Your task to perform on an android device: turn on the 24-hour format for clock Image 0: 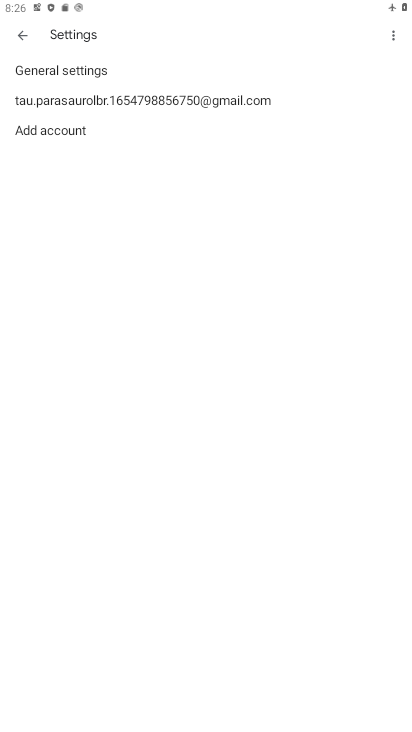
Step 0: press back button
Your task to perform on an android device: turn on the 24-hour format for clock Image 1: 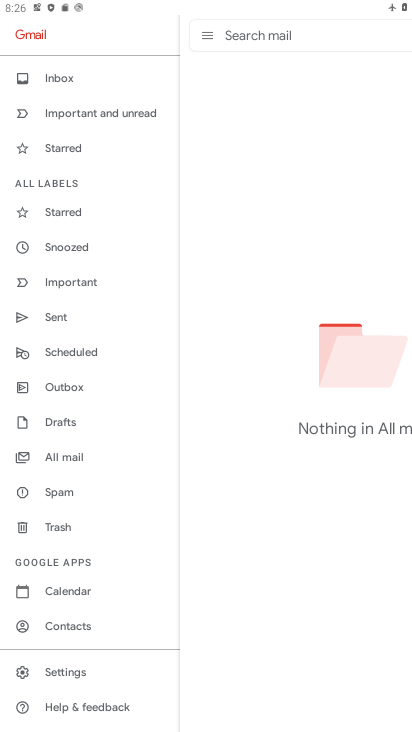
Step 1: press home button
Your task to perform on an android device: turn on the 24-hour format for clock Image 2: 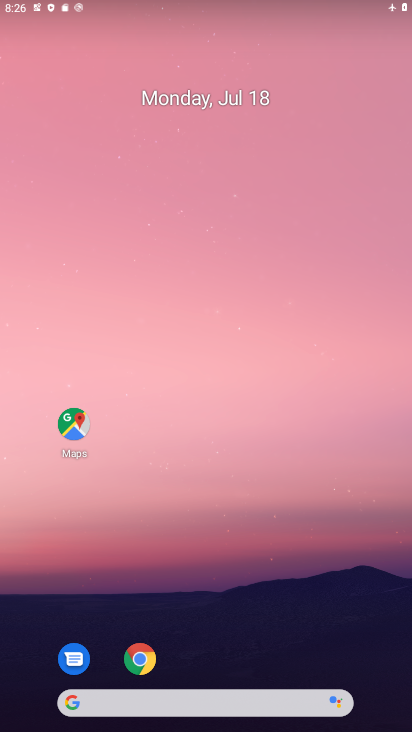
Step 2: drag from (249, 652) to (120, 183)
Your task to perform on an android device: turn on the 24-hour format for clock Image 3: 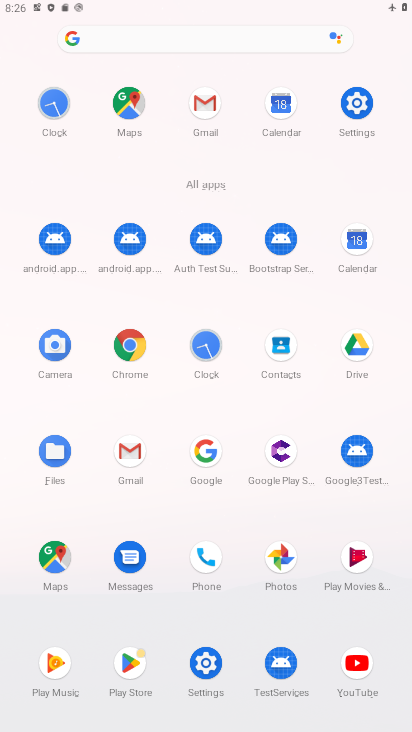
Step 3: click (208, 341)
Your task to perform on an android device: turn on the 24-hour format for clock Image 4: 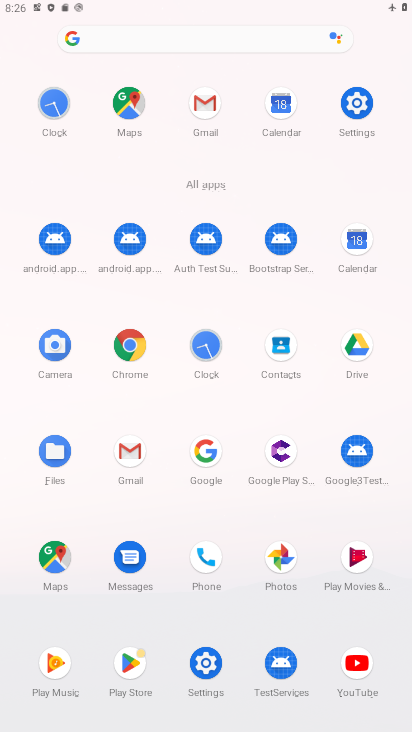
Step 4: click (200, 342)
Your task to perform on an android device: turn on the 24-hour format for clock Image 5: 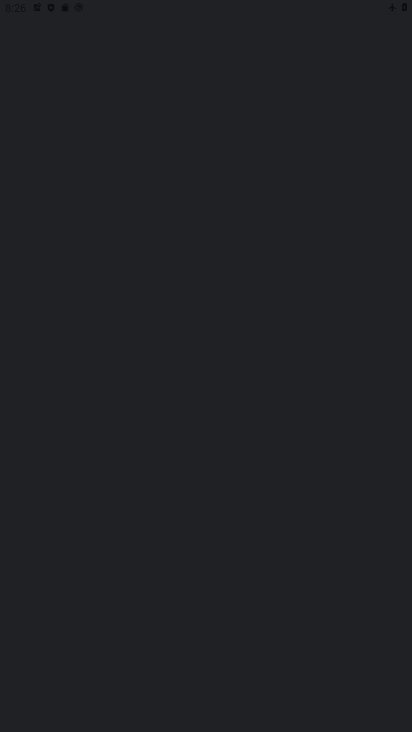
Step 5: click (200, 342)
Your task to perform on an android device: turn on the 24-hour format for clock Image 6: 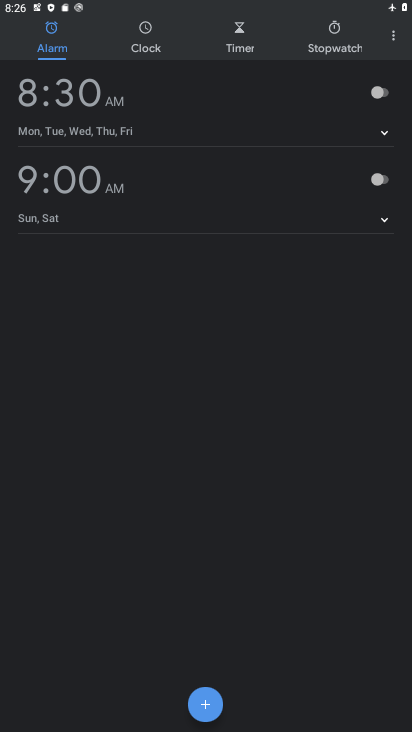
Step 6: click (210, 340)
Your task to perform on an android device: turn on the 24-hour format for clock Image 7: 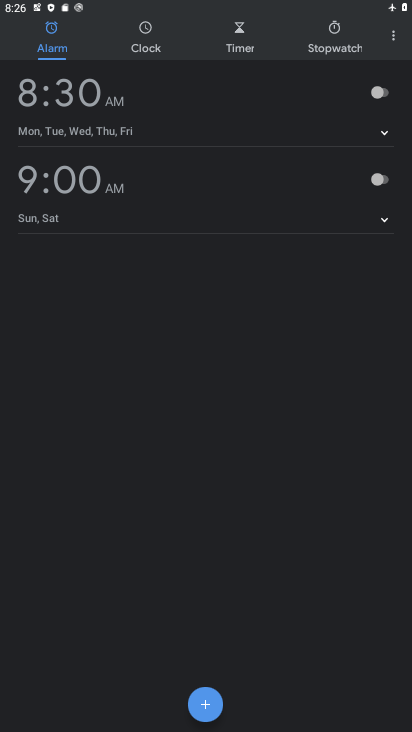
Step 7: click (387, 37)
Your task to perform on an android device: turn on the 24-hour format for clock Image 8: 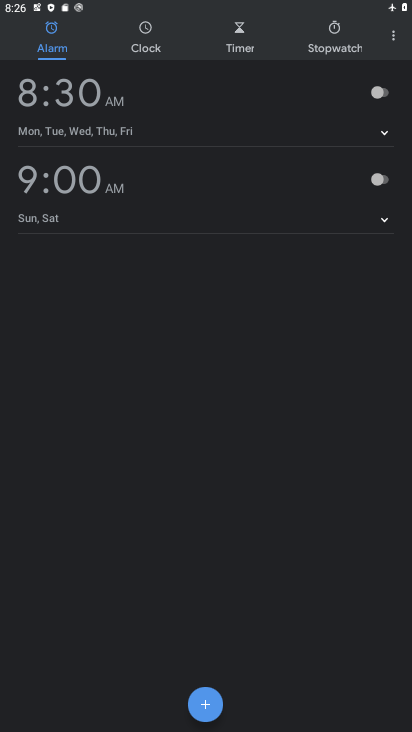
Step 8: click (387, 37)
Your task to perform on an android device: turn on the 24-hour format for clock Image 9: 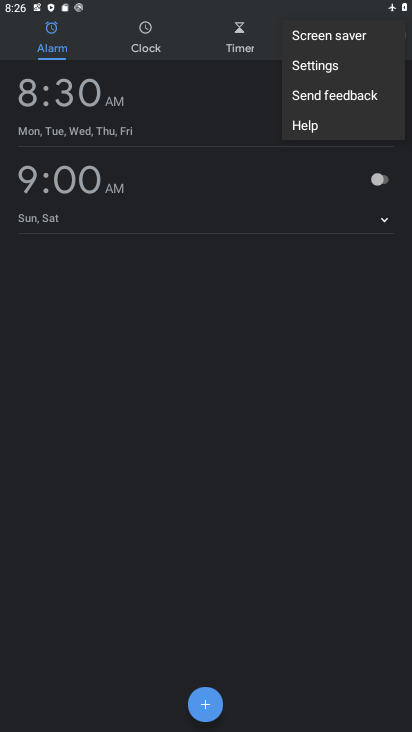
Step 9: click (387, 37)
Your task to perform on an android device: turn on the 24-hour format for clock Image 10: 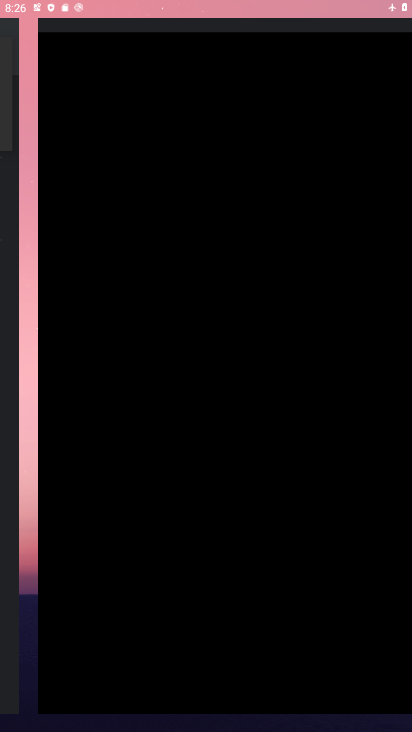
Step 10: click (315, 70)
Your task to perform on an android device: turn on the 24-hour format for clock Image 11: 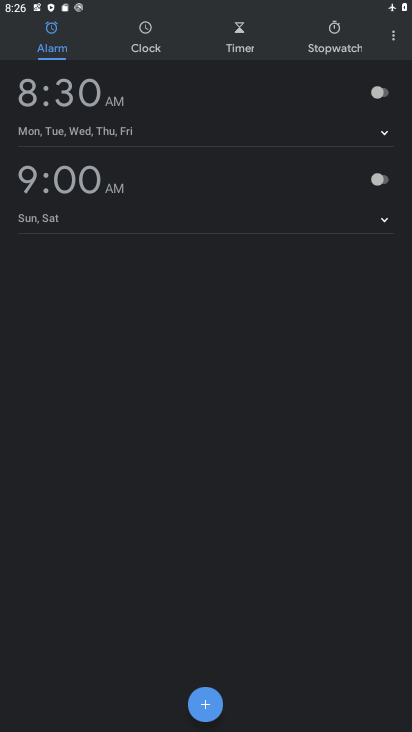
Step 11: click (389, 32)
Your task to perform on an android device: turn on the 24-hour format for clock Image 12: 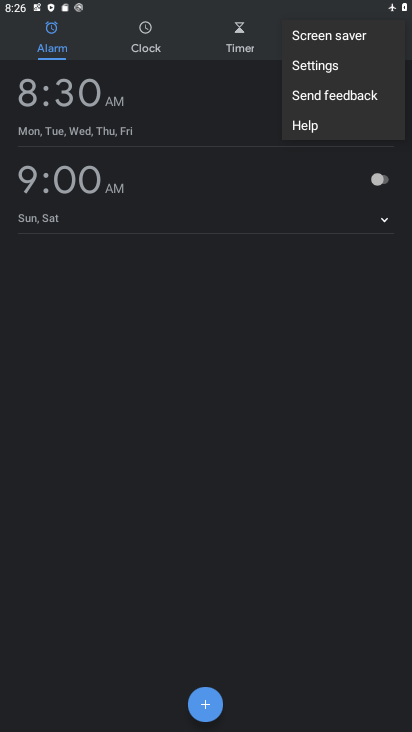
Step 12: click (309, 76)
Your task to perform on an android device: turn on the 24-hour format for clock Image 13: 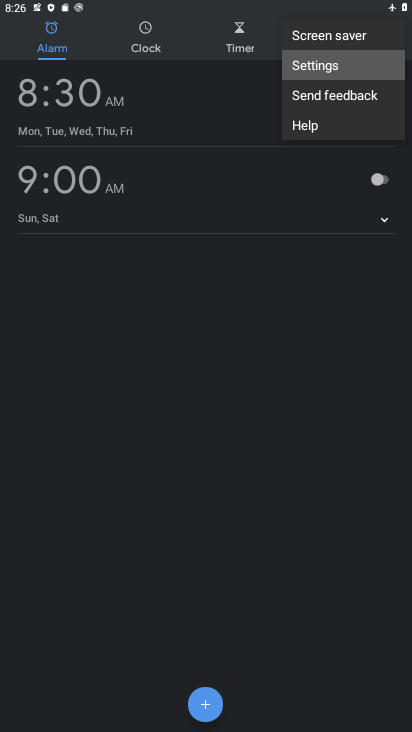
Step 13: click (309, 76)
Your task to perform on an android device: turn on the 24-hour format for clock Image 14: 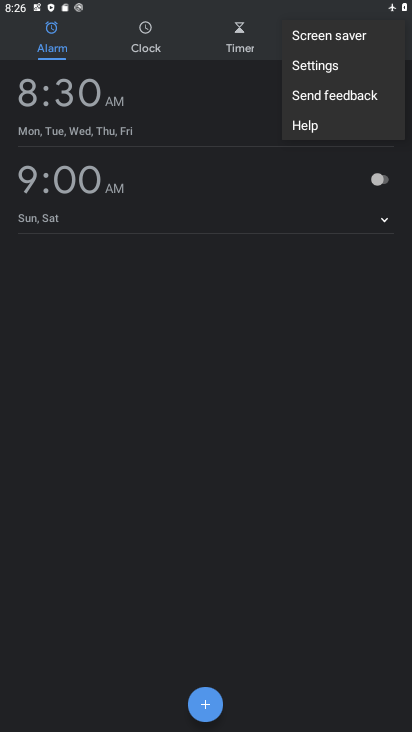
Step 14: click (309, 76)
Your task to perform on an android device: turn on the 24-hour format for clock Image 15: 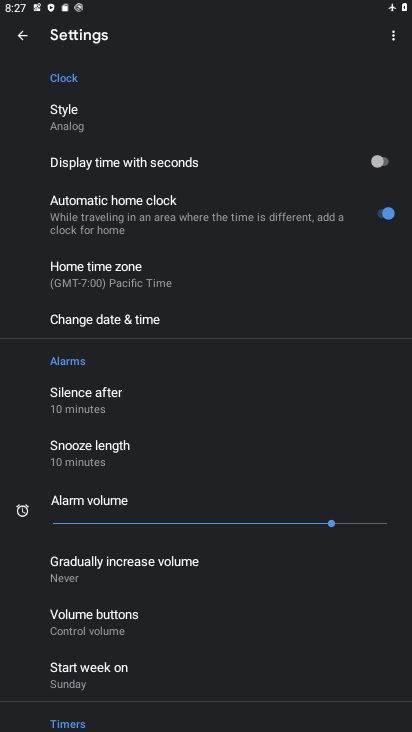
Step 15: click (104, 320)
Your task to perform on an android device: turn on the 24-hour format for clock Image 16: 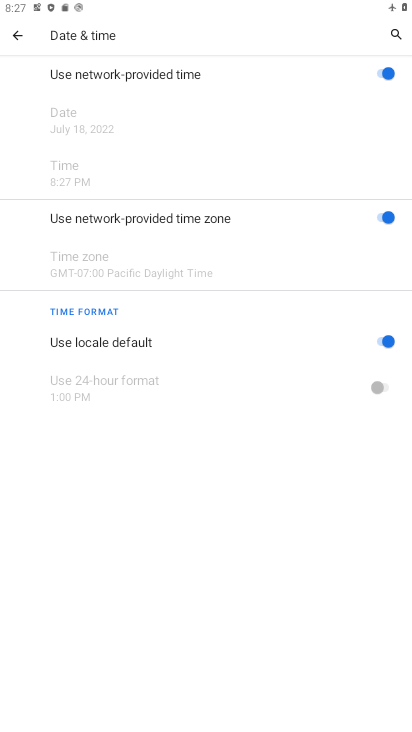
Step 16: click (383, 391)
Your task to perform on an android device: turn on the 24-hour format for clock Image 17: 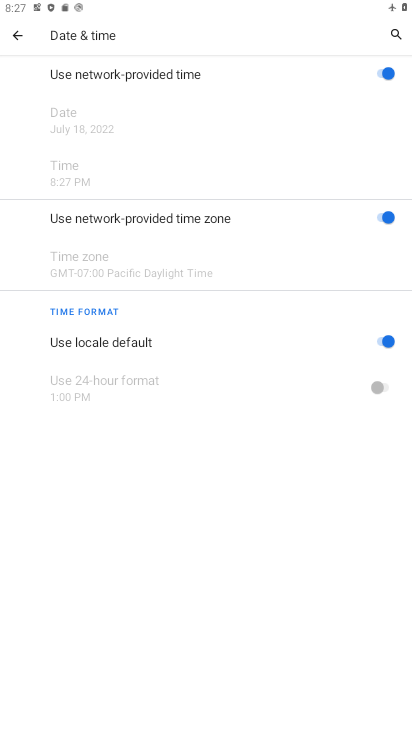
Step 17: click (383, 342)
Your task to perform on an android device: turn on the 24-hour format for clock Image 18: 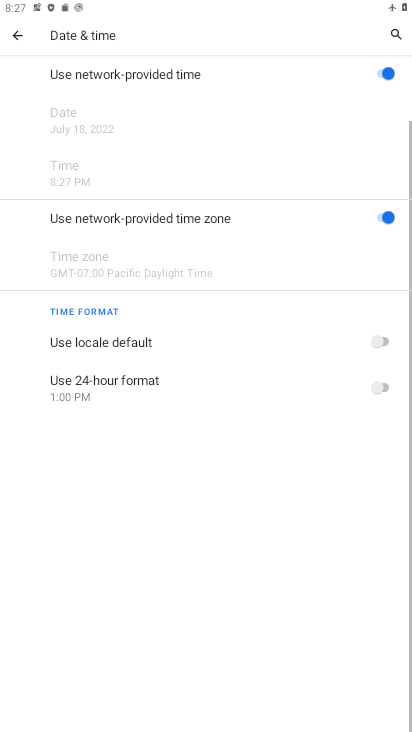
Step 18: click (384, 388)
Your task to perform on an android device: turn on the 24-hour format for clock Image 19: 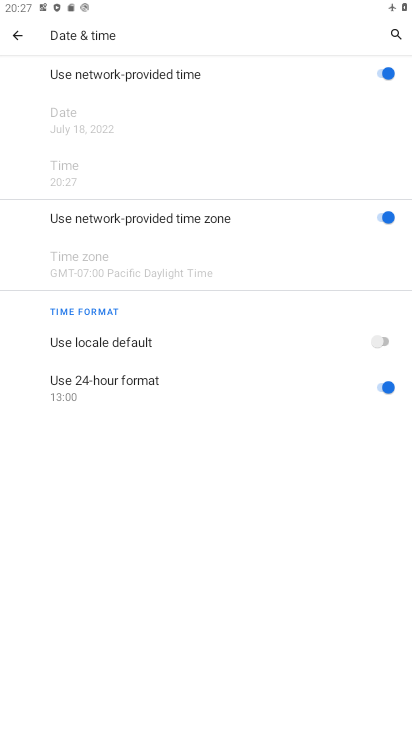
Step 19: task complete